Your task to perform on an android device: Open location settings Image 0: 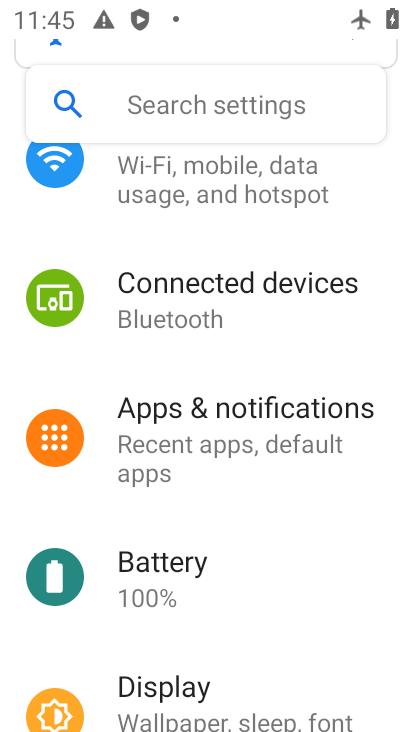
Step 0: drag from (250, 599) to (238, 164)
Your task to perform on an android device: Open location settings Image 1: 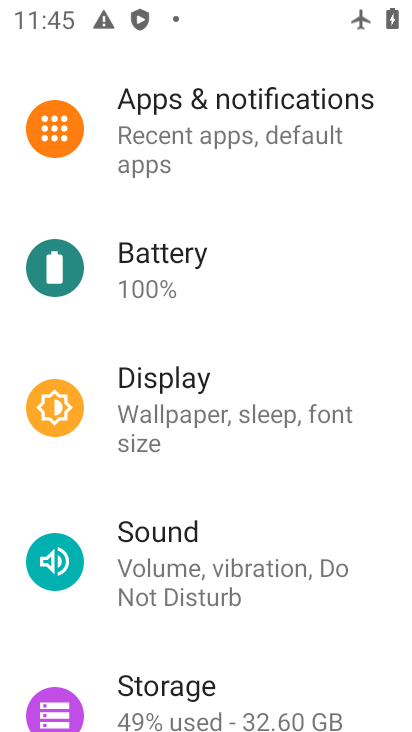
Step 1: drag from (248, 639) to (245, 220)
Your task to perform on an android device: Open location settings Image 2: 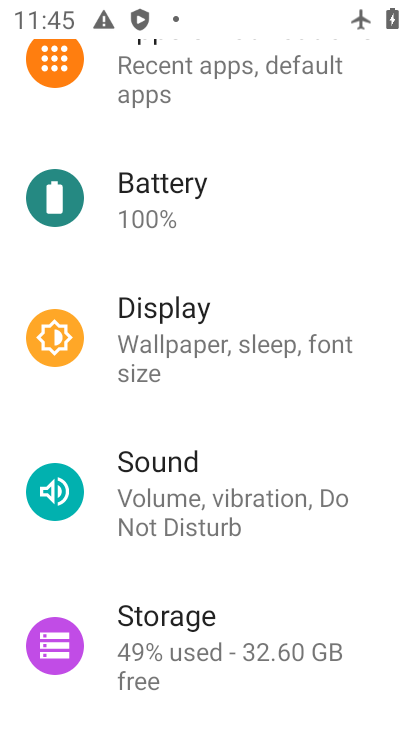
Step 2: drag from (250, 533) to (243, 293)
Your task to perform on an android device: Open location settings Image 3: 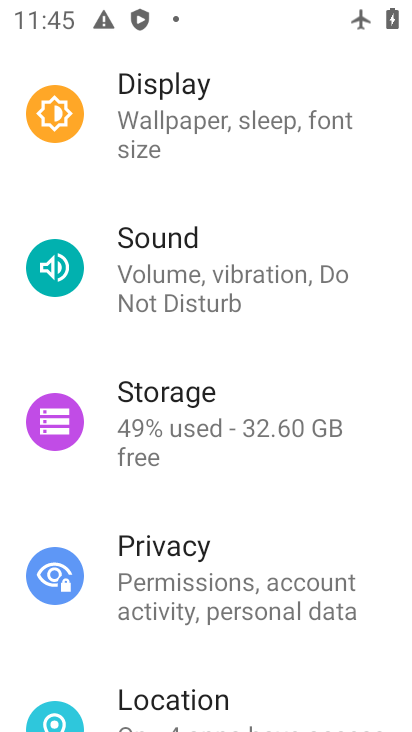
Step 3: click (153, 697)
Your task to perform on an android device: Open location settings Image 4: 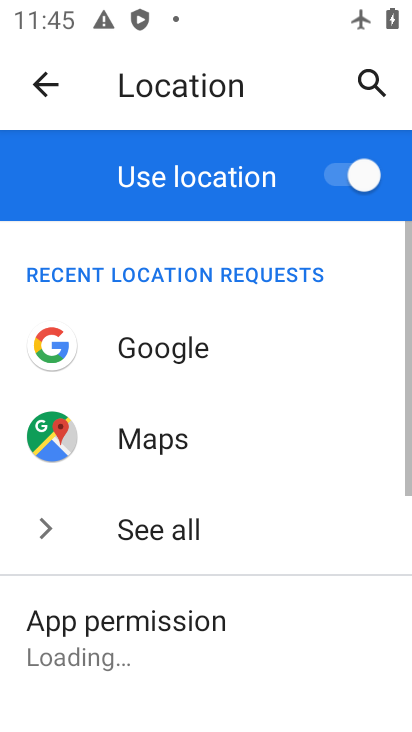
Step 4: drag from (251, 667) to (244, 217)
Your task to perform on an android device: Open location settings Image 5: 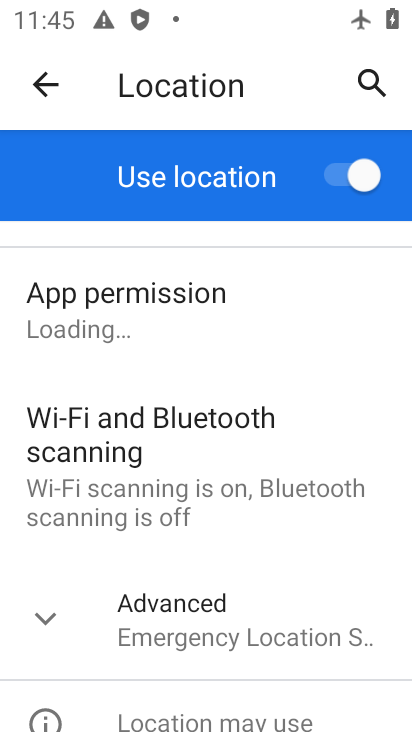
Step 5: click (58, 619)
Your task to perform on an android device: Open location settings Image 6: 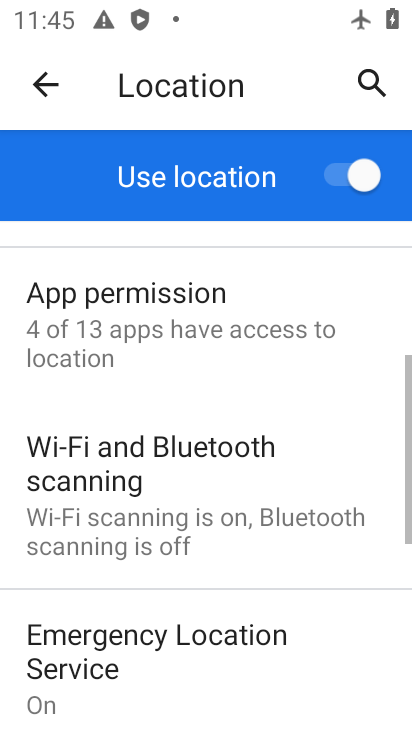
Step 6: task complete